Your task to perform on an android device: turn off location history Image 0: 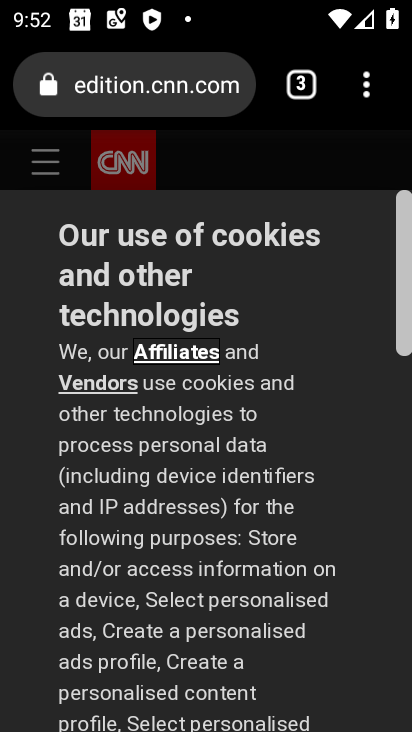
Step 0: press home button
Your task to perform on an android device: turn off location history Image 1: 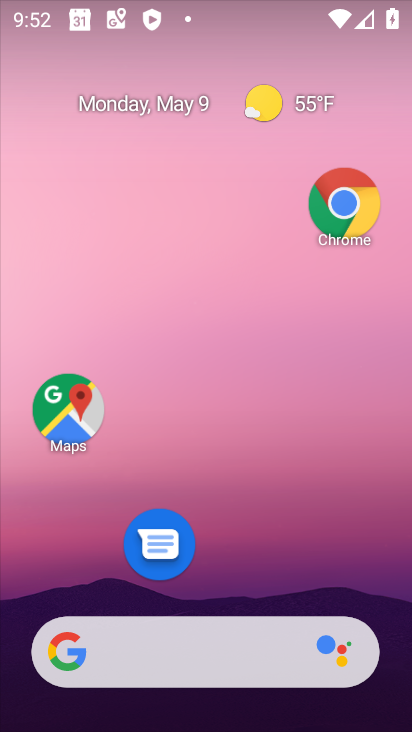
Step 1: drag from (244, 568) to (242, 145)
Your task to perform on an android device: turn off location history Image 2: 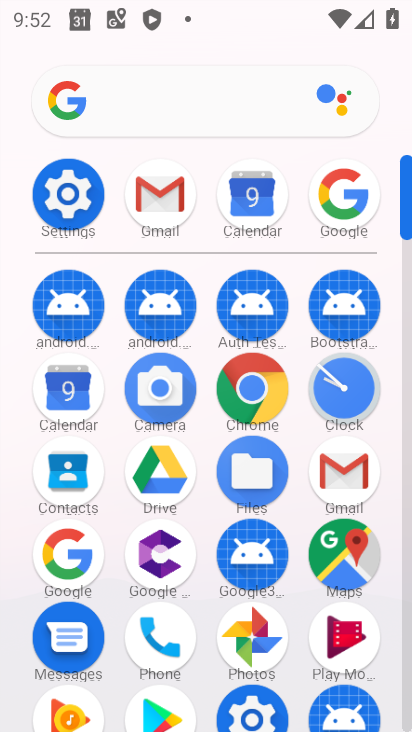
Step 2: click (78, 213)
Your task to perform on an android device: turn off location history Image 3: 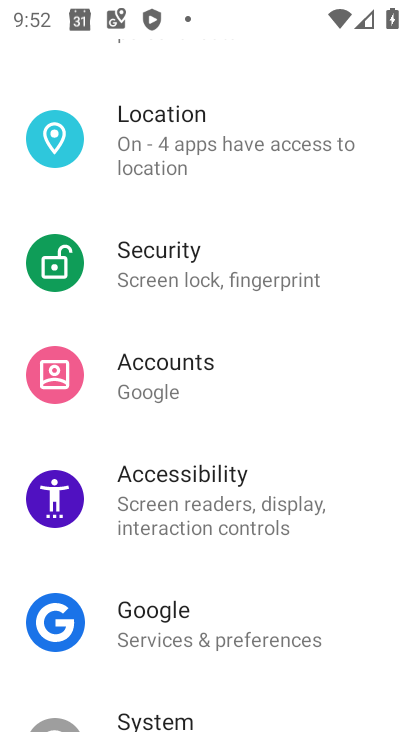
Step 3: drag from (245, 616) to (243, 541)
Your task to perform on an android device: turn off location history Image 4: 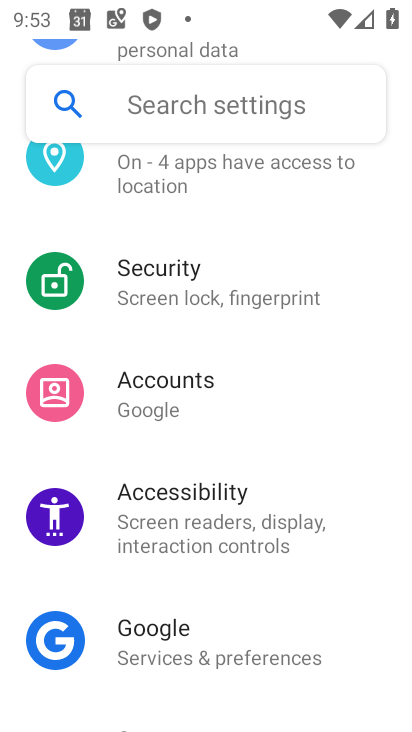
Step 4: drag from (210, 271) to (243, 494)
Your task to perform on an android device: turn off location history Image 5: 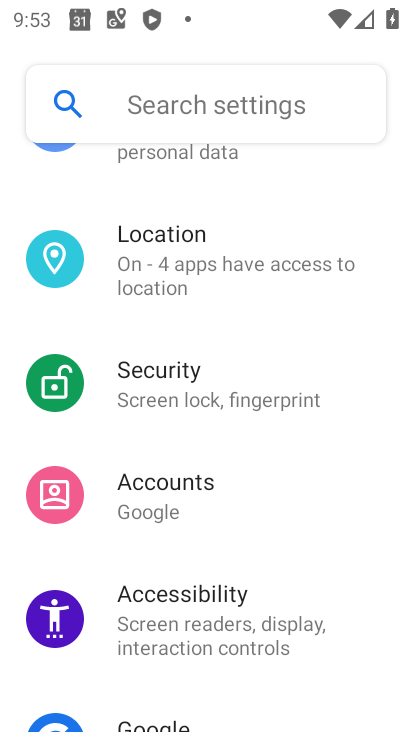
Step 5: click (166, 269)
Your task to perform on an android device: turn off location history Image 6: 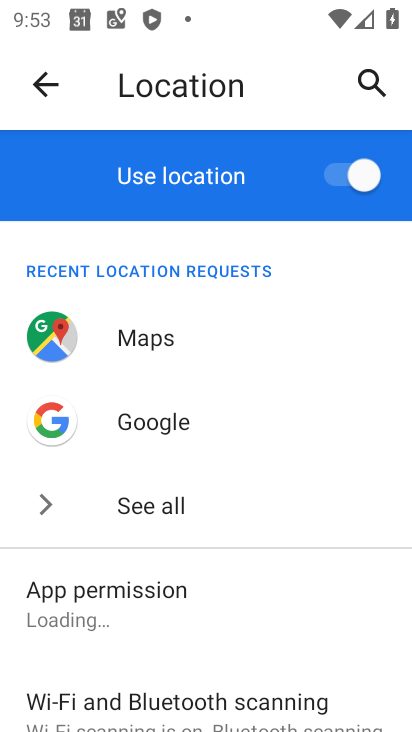
Step 6: drag from (226, 690) to (242, 431)
Your task to perform on an android device: turn off location history Image 7: 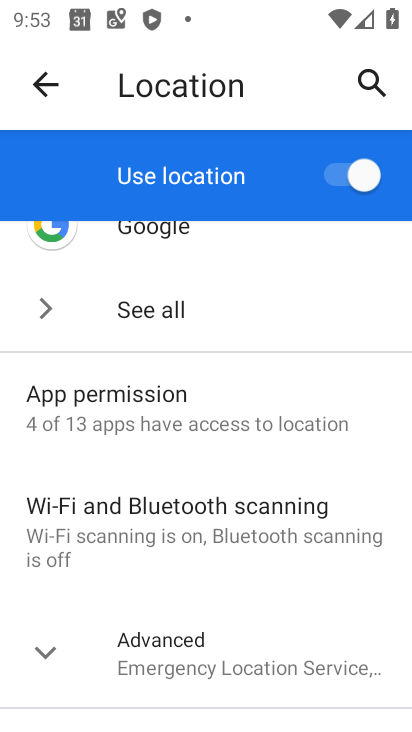
Step 7: drag from (190, 610) to (233, 364)
Your task to perform on an android device: turn off location history Image 8: 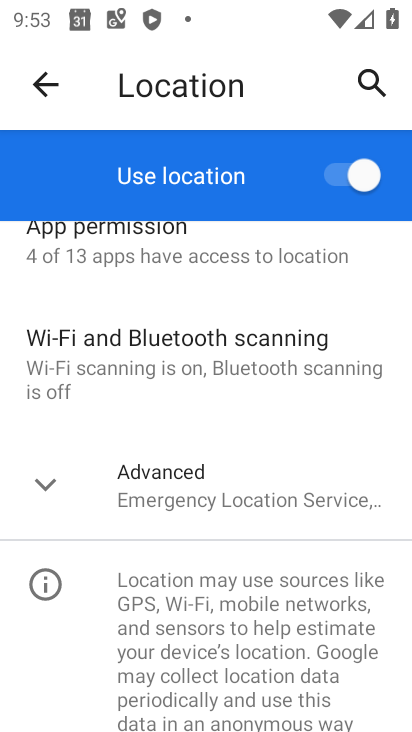
Step 8: drag from (217, 614) to (222, 388)
Your task to perform on an android device: turn off location history Image 9: 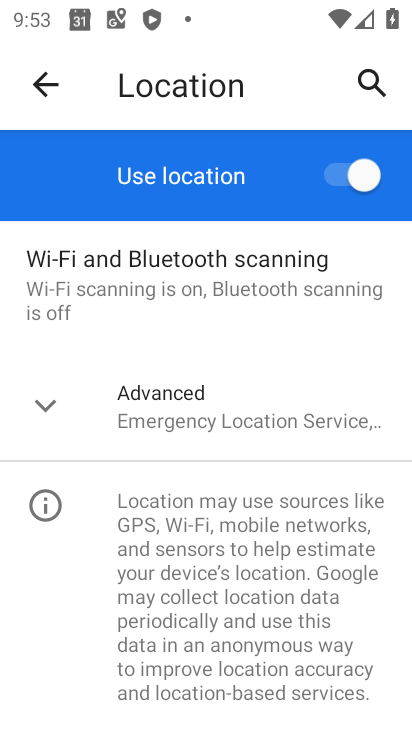
Step 9: click (197, 404)
Your task to perform on an android device: turn off location history Image 10: 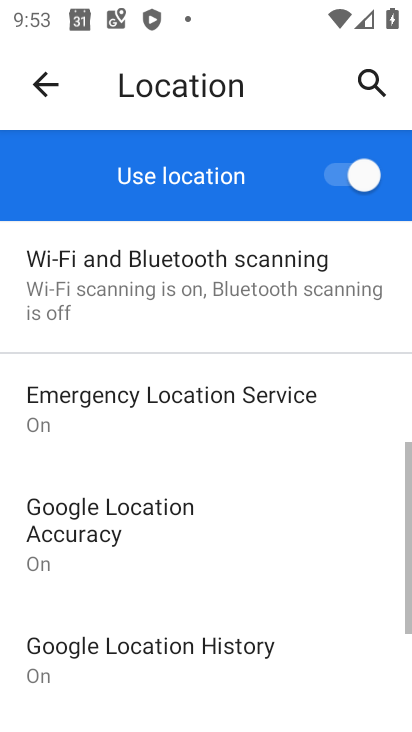
Step 10: drag from (228, 614) to (233, 513)
Your task to perform on an android device: turn off location history Image 11: 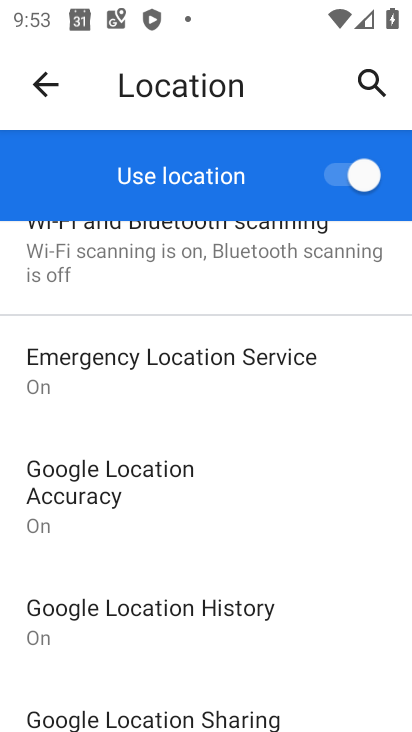
Step 11: click (183, 593)
Your task to perform on an android device: turn off location history Image 12: 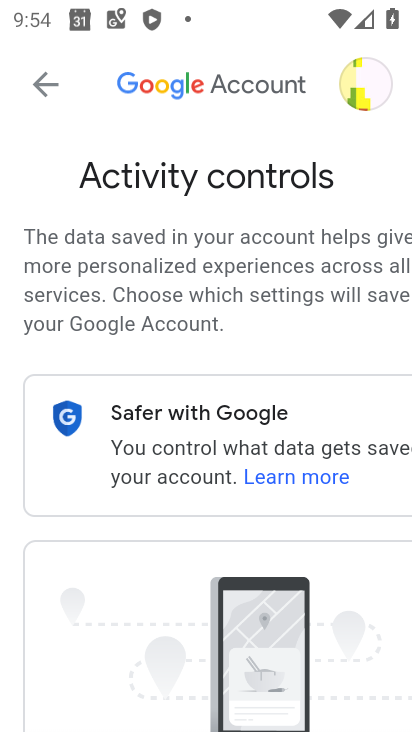
Step 12: task complete